Your task to perform on an android device: Show me popular games on the Play Store Image 0: 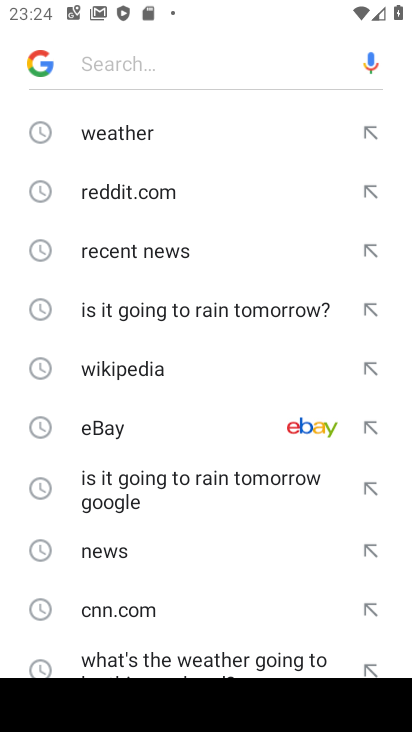
Step 0: press home button
Your task to perform on an android device: Show me popular games on the Play Store Image 1: 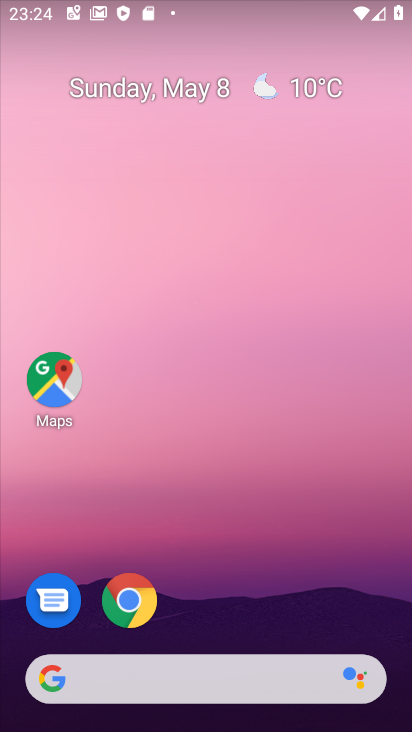
Step 1: drag from (171, 600) to (208, 138)
Your task to perform on an android device: Show me popular games on the Play Store Image 2: 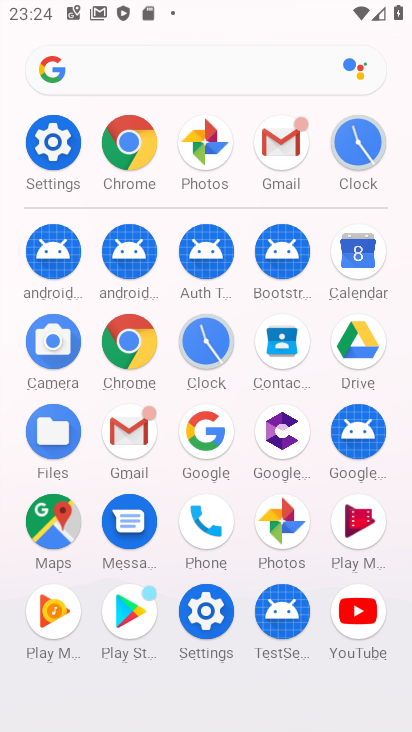
Step 2: click (127, 591)
Your task to perform on an android device: Show me popular games on the Play Store Image 3: 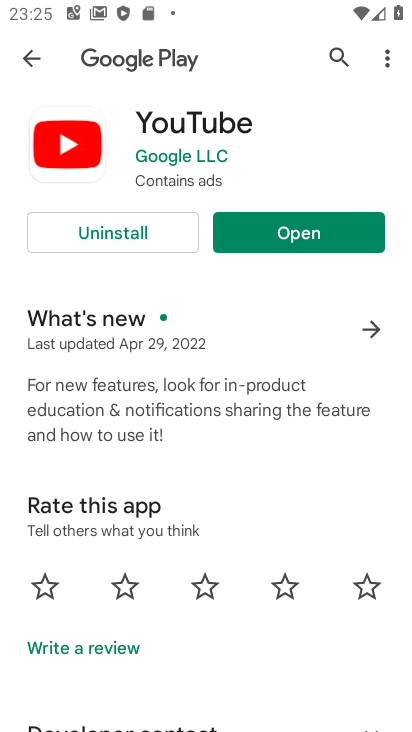
Step 3: click (23, 72)
Your task to perform on an android device: Show me popular games on the Play Store Image 4: 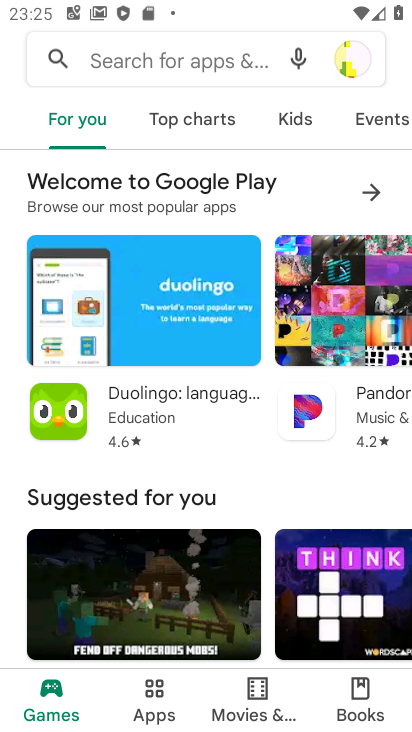
Step 4: click (139, 714)
Your task to perform on an android device: Show me popular games on the Play Store Image 5: 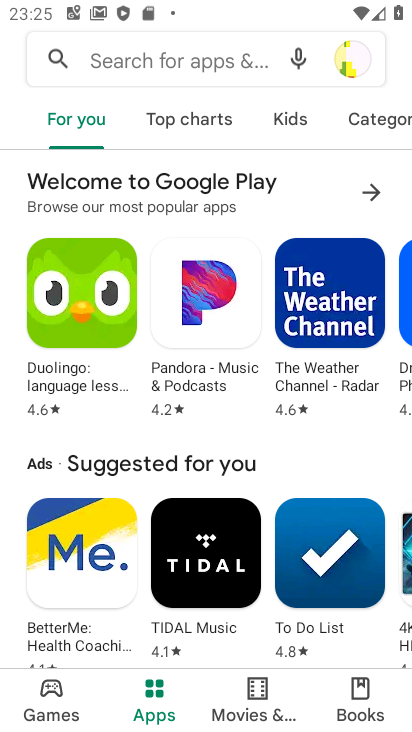
Step 5: click (47, 712)
Your task to perform on an android device: Show me popular games on the Play Store Image 6: 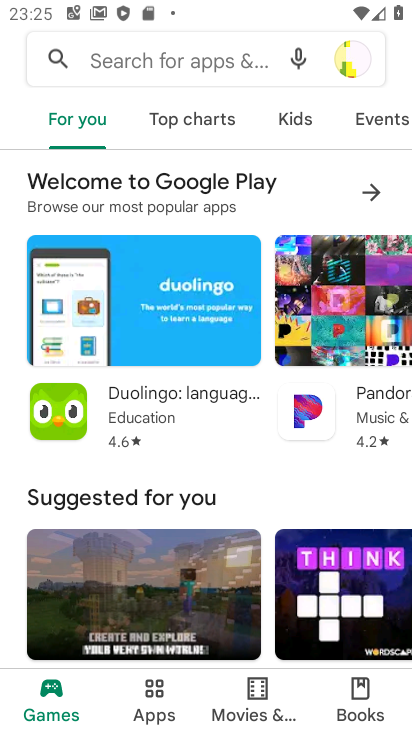
Step 6: click (210, 113)
Your task to perform on an android device: Show me popular games on the Play Store Image 7: 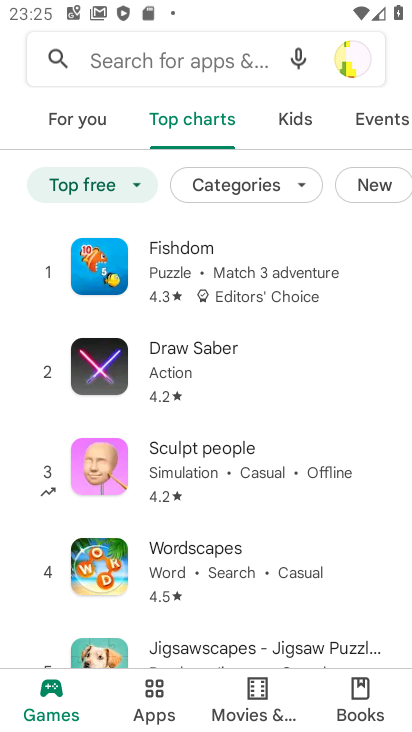
Step 7: task complete